Your task to perform on an android device: What's on my calendar today? Image 0: 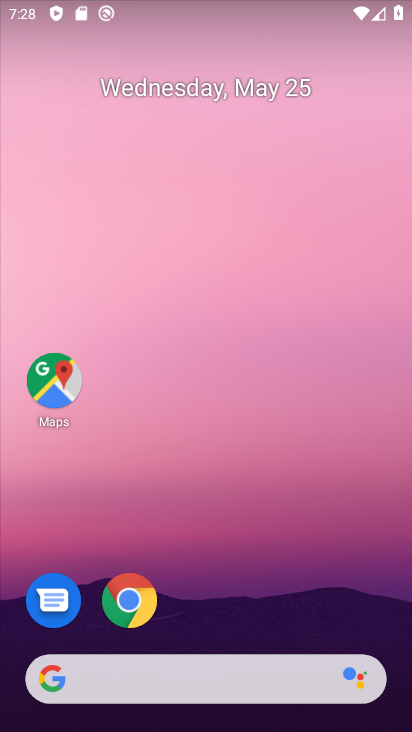
Step 0: drag from (308, 593) to (301, 238)
Your task to perform on an android device: What's on my calendar today? Image 1: 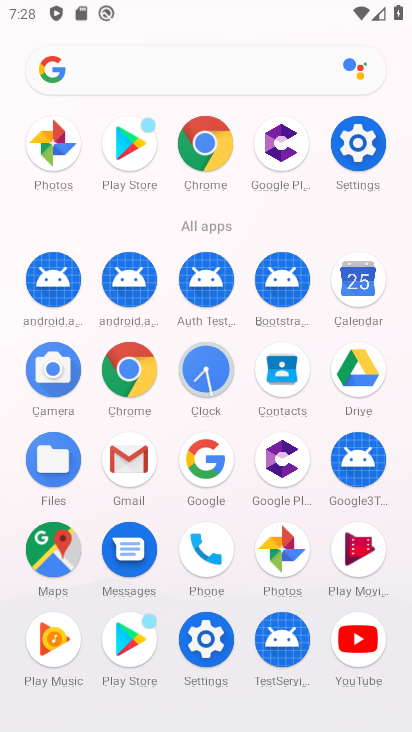
Step 1: click (367, 285)
Your task to perform on an android device: What's on my calendar today? Image 2: 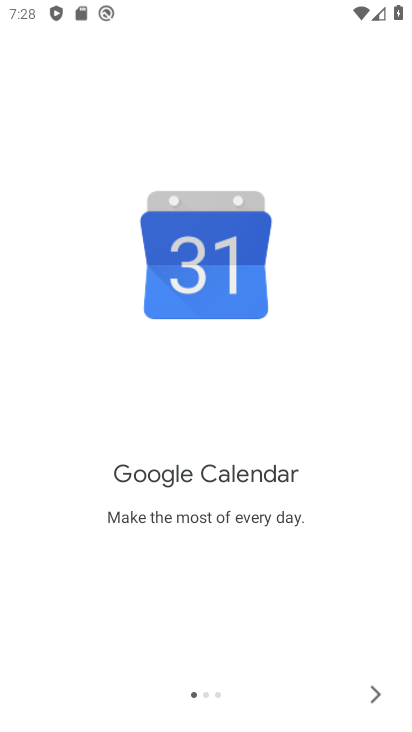
Step 2: click (373, 686)
Your task to perform on an android device: What's on my calendar today? Image 3: 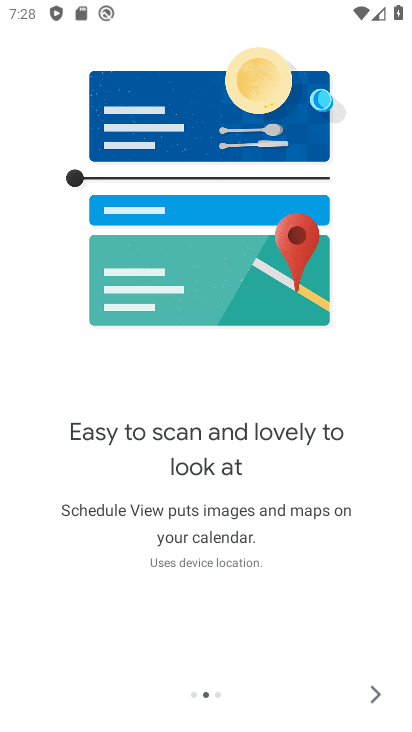
Step 3: click (373, 686)
Your task to perform on an android device: What's on my calendar today? Image 4: 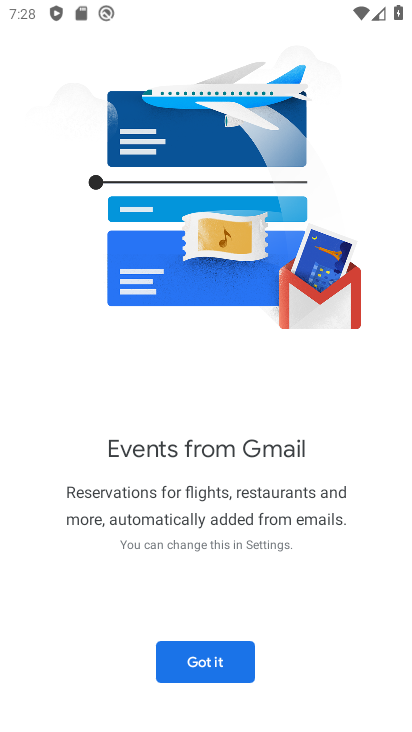
Step 4: click (193, 659)
Your task to perform on an android device: What's on my calendar today? Image 5: 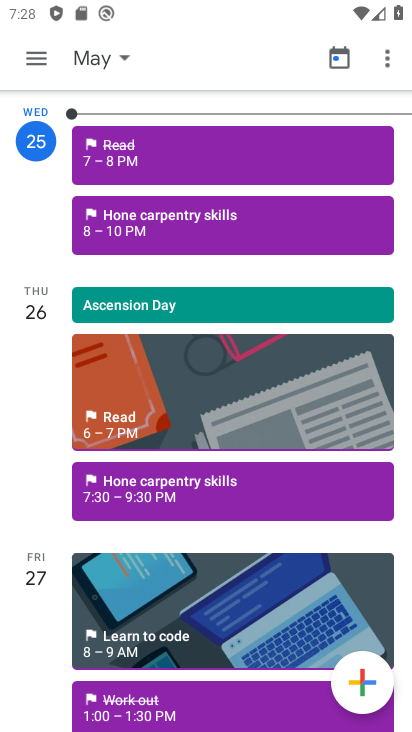
Step 5: click (85, 61)
Your task to perform on an android device: What's on my calendar today? Image 6: 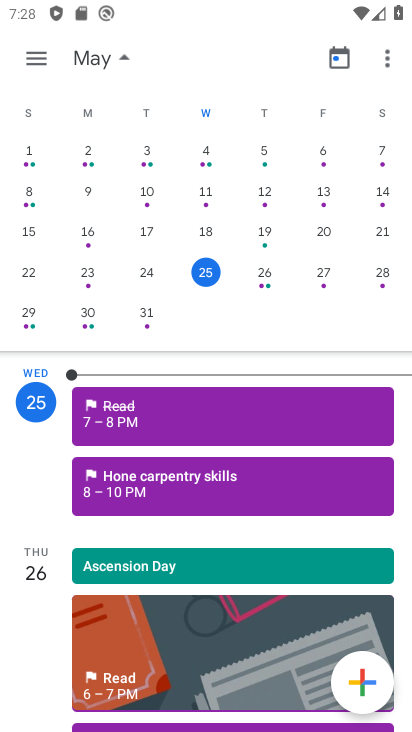
Step 6: click (207, 274)
Your task to perform on an android device: What's on my calendar today? Image 7: 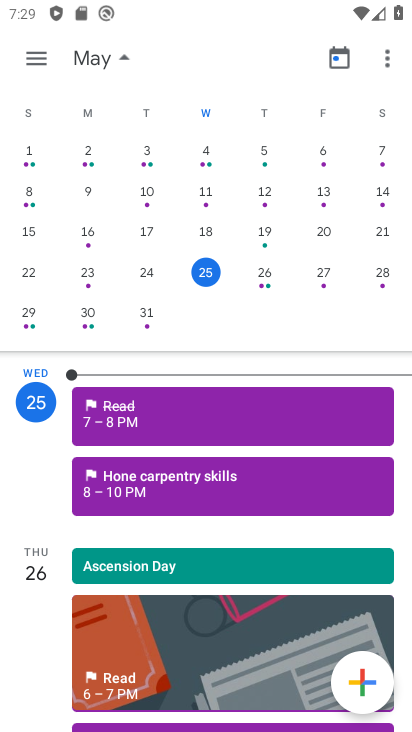
Step 7: task complete